Your task to perform on an android device: Open Maps and search for coffee Image 0: 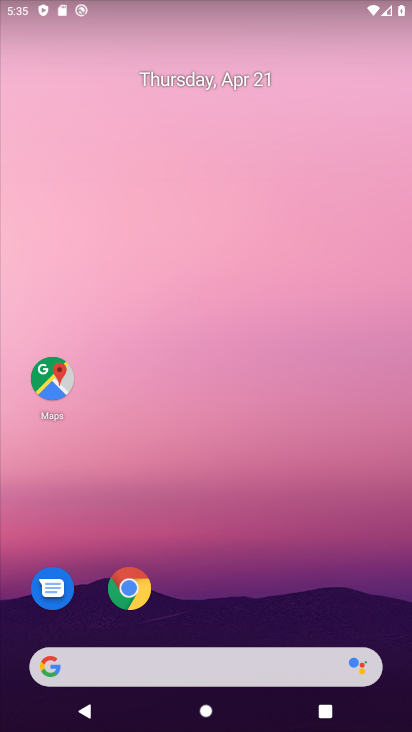
Step 0: drag from (299, 609) to (266, 147)
Your task to perform on an android device: Open Maps and search for coffee Image 1: 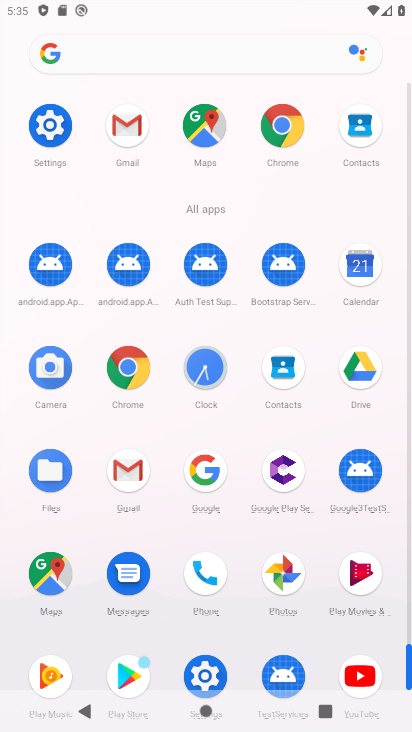
Step 1: click (206, 142)
Your task to perform on an android device: Open Maps and search for coffee Image 2: 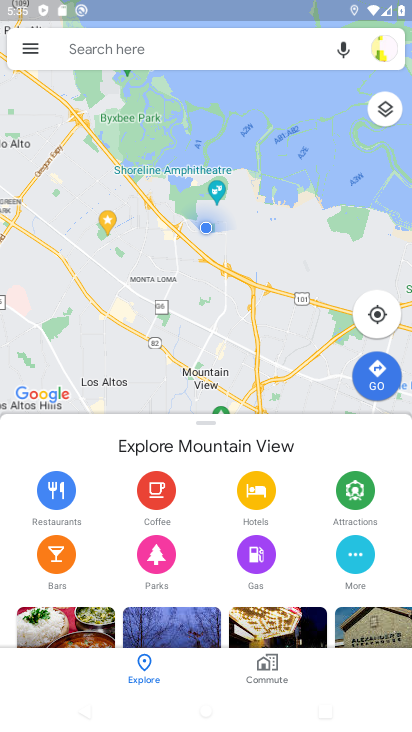
Step 2: click (134, 34)
Your task to perform on an android device: Open Maps and search for coffee Image 3: 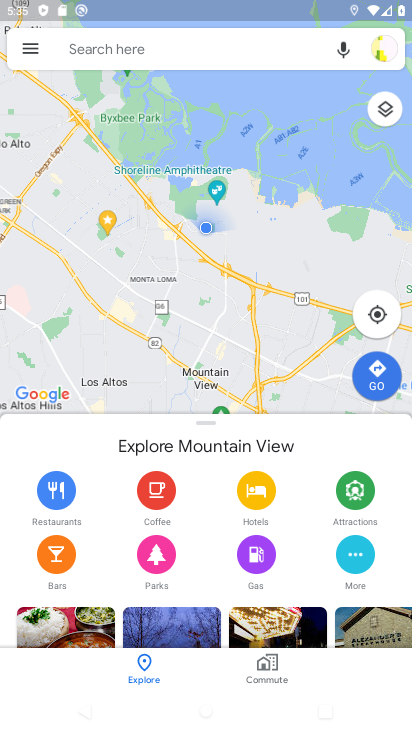
Step 3: click (142, 47)
Your task to perform on an android device: Open Maps and search for coffee Image 4: 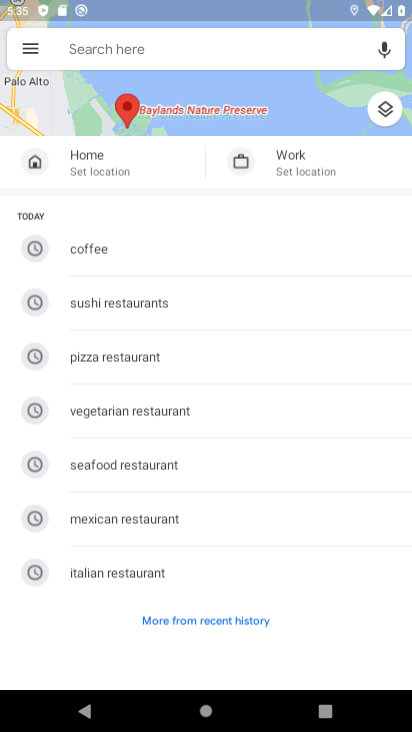
Step 4: click (71, 208)
Your task to perform on an android device: Open Maps and search for coffee Image 5: 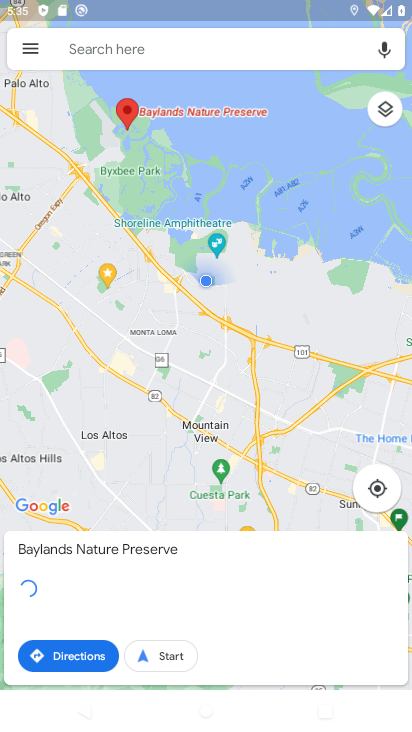
Step 5: click (76, 258)
Your task to perform on an android device: Open Maps and search for coffee Image 6: 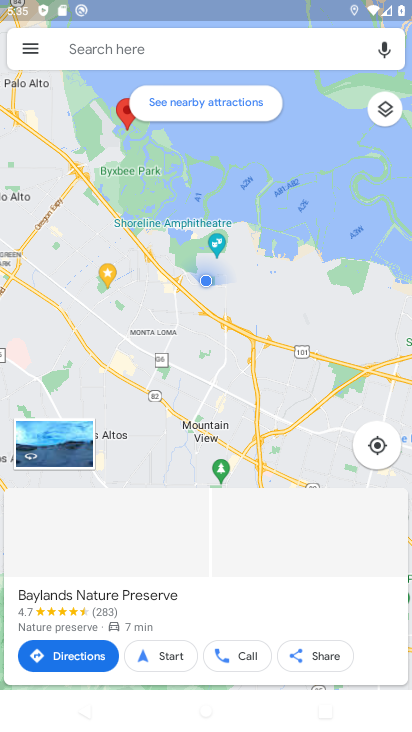
Step 6: click (157, 46)
Your task to perform on an android device: Open Maps and search for coffee Image 7: 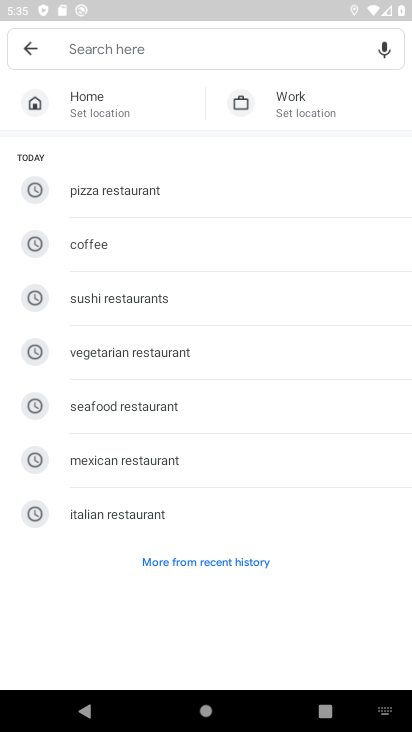
Step 7: click (89, 249)
Your task to perform on an android device: Open Maps and search for coffee Image 8: 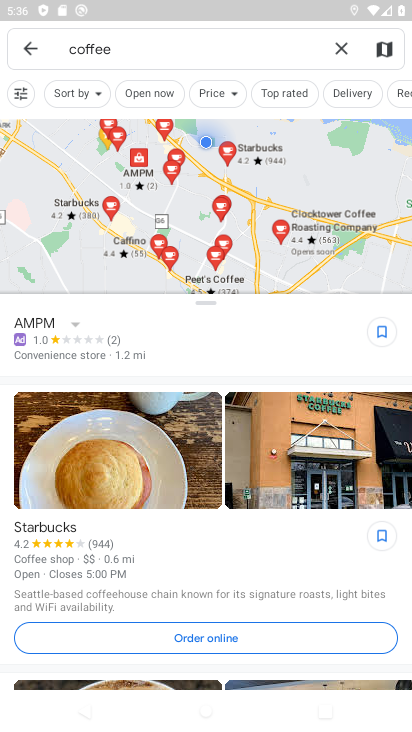
Step 8: task complete